Your task to perform on an android device: What is the recent news? Image 0: 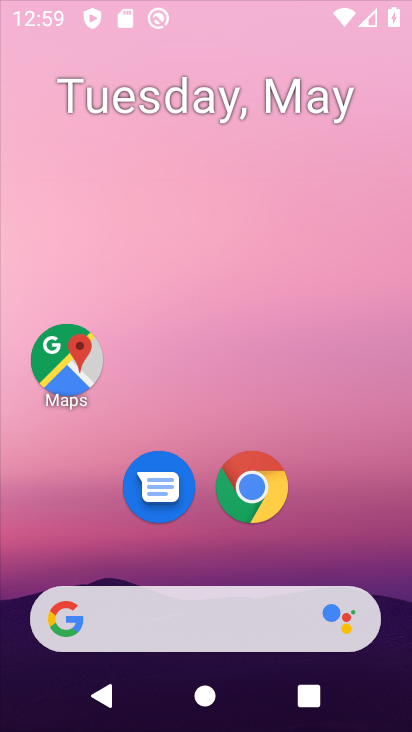
Step 0: press home button
Your task to perform on an android device: What is the recent news? Image 1: 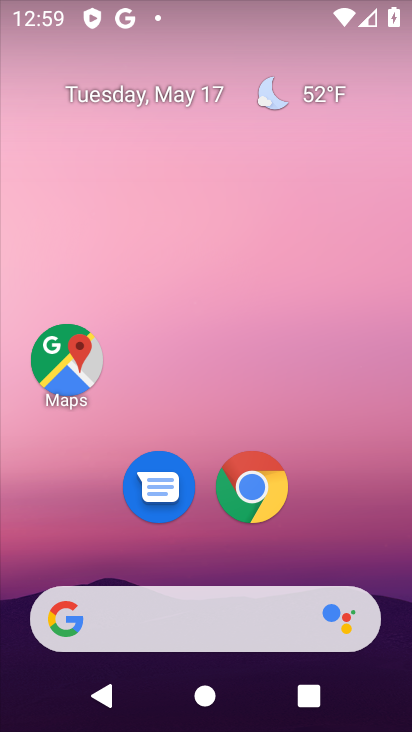
Step 1: click (235, 41)
Your task to perform on an android device: What is the recent news? Image 2: 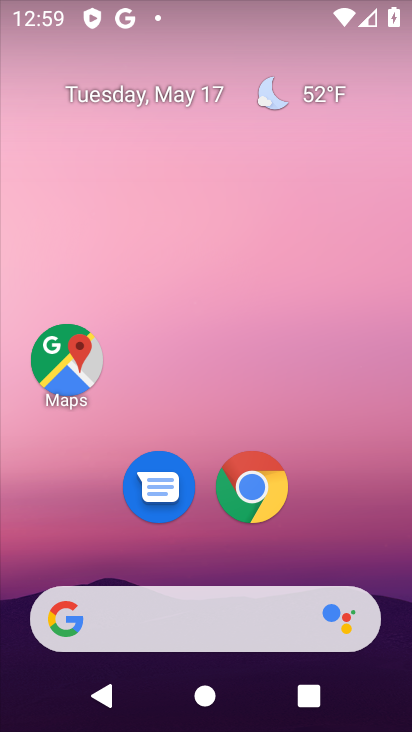
Step 2: drag from (378, 580) to (344, 16)
Your task to perform on an android device: What is the recent news? Image 3: 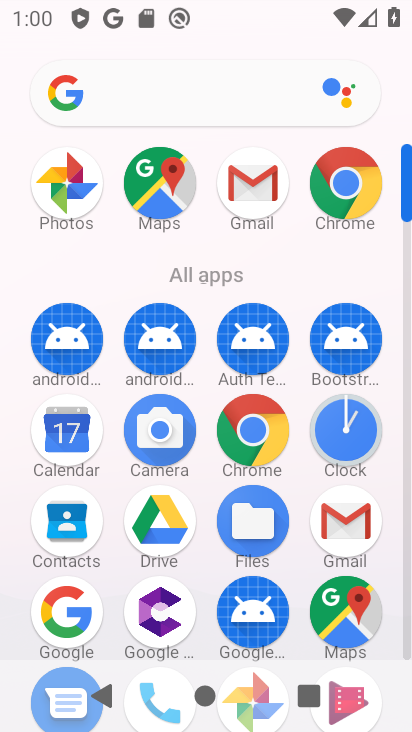
Step 3: click (237, 456)
Your task to perform on an android device: What is the recent news? Image 4: 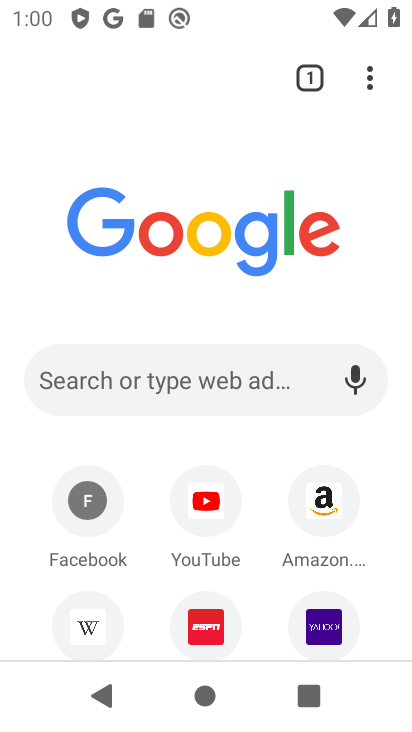
Step 4: click (225, 368)
Your task to perform on an android device: What is the recent news? Image 5: 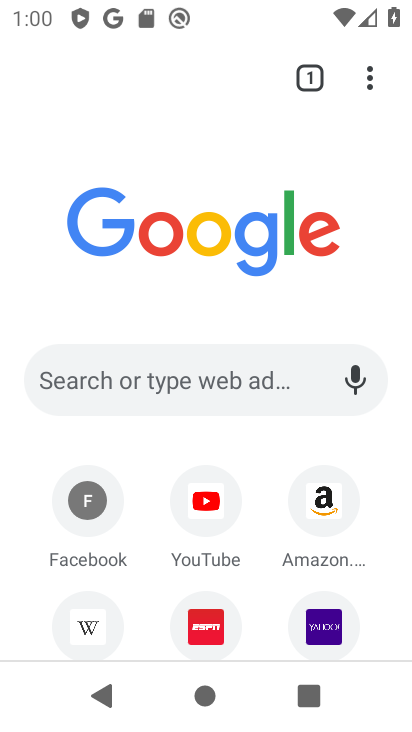
Step 5: click (225, 368)
Your task to perform on an android device: What is the recent news? Image 6: 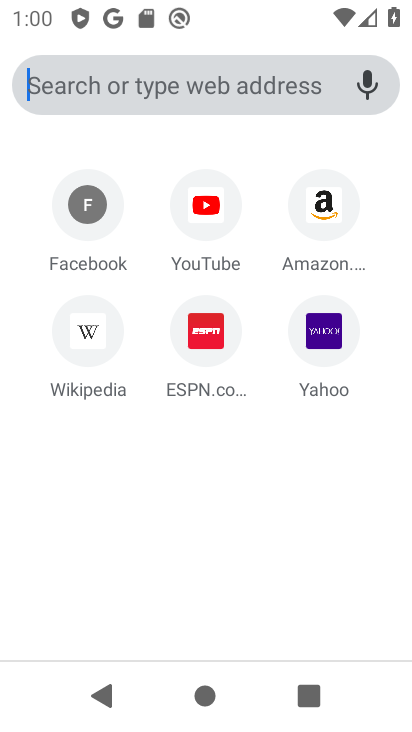
Step 6: click (225, 368)
Your task to perform on an android device: What is the recent news? Image 7: 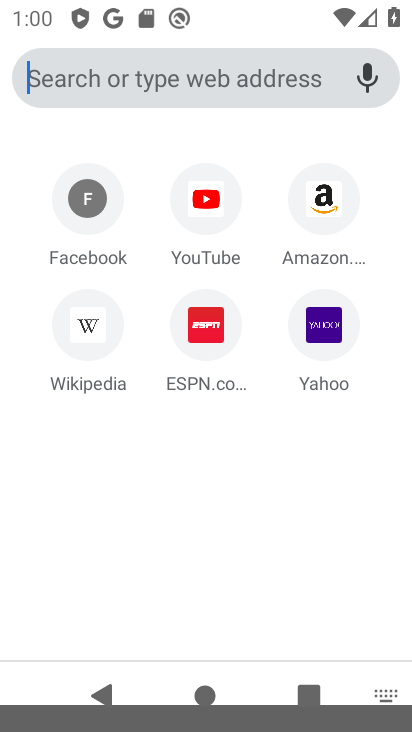
Step 7: click (225, 368)
Your task to perform on an android device: What is the recent news? Image 8: 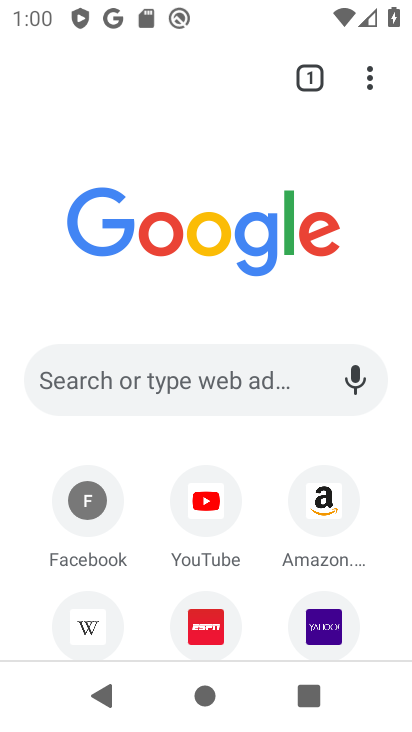
Step 8: click (226, 404)
Your task to perform on an android device: What is the recent news? Image 9: 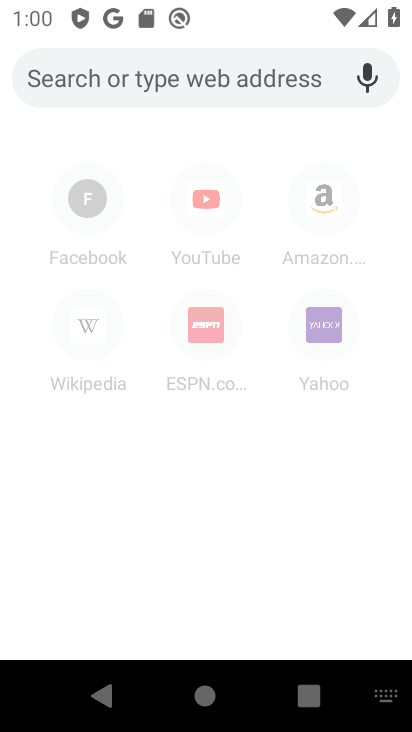
Step 9: type "What is the recent news?"
Your task to perform on an android device: What is the recent news? Image 10: 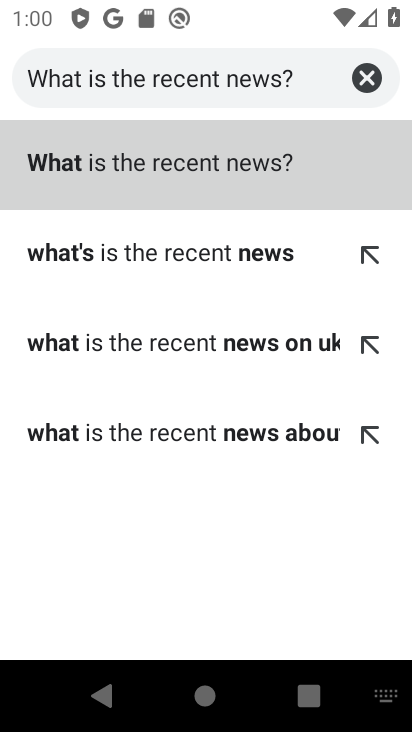
Step 10: click (89, 184)
Your task to perform on an android device: What is the recent news? Image 11: 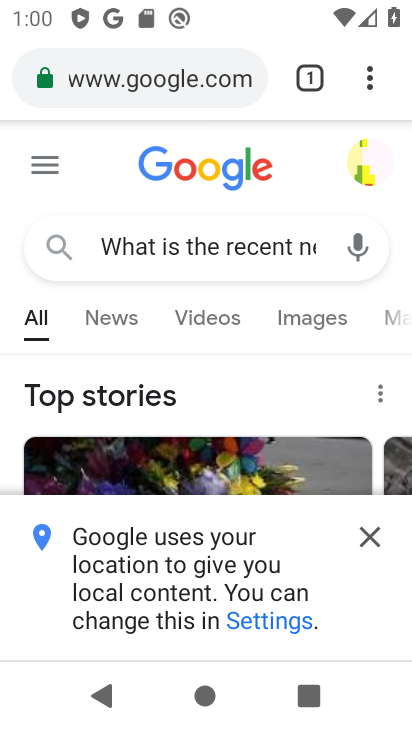
Step 11: click (367, 534)
Your task to perform on an android device: What is the recent news? Image 12: 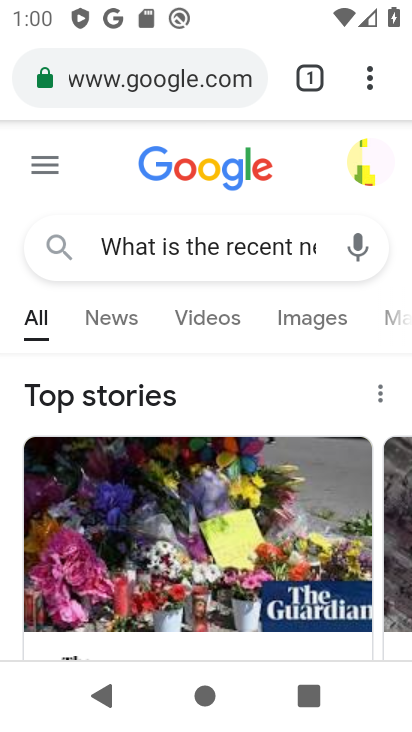
Step 12: task complete